Your task to perform on an android device: Go to Wikipedia Image 0: 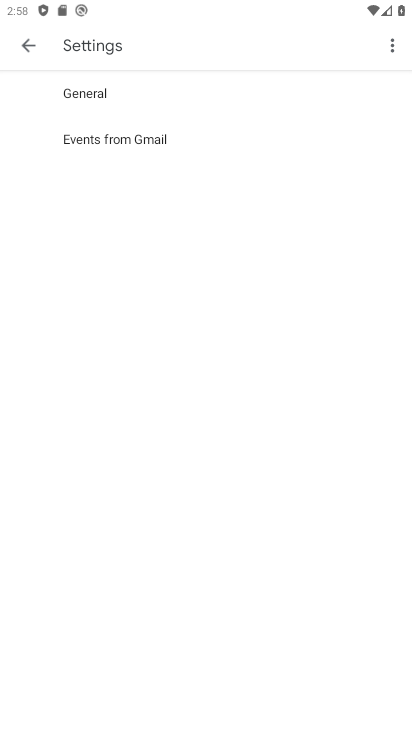
Step 0: press home button
Your task to perform on an android device: Go to Wikipedia Image 1: 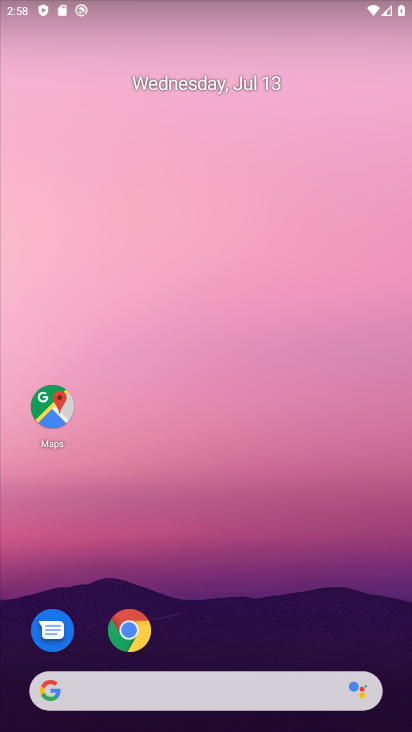
Step 1: click (124, 629)
Your task to perform on an android device: Go to Wikipedia Image 2: 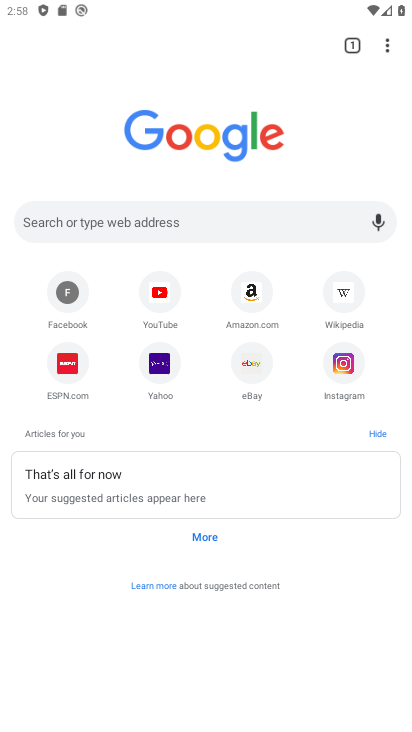
Step 2: click (345, 302)
Your task to perform on an android device: Go to Wikipedia Image 3: 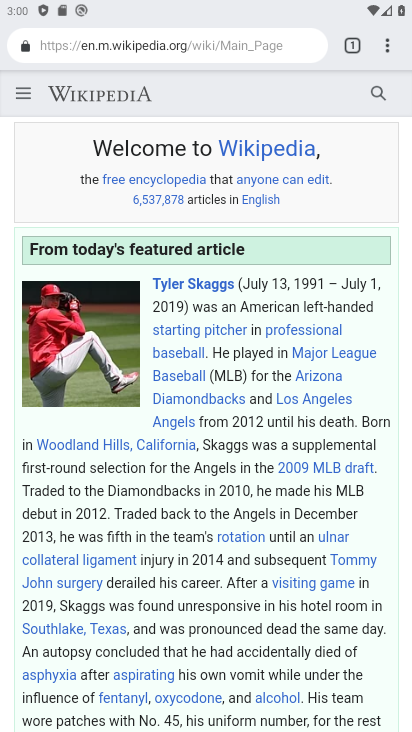
Step 3: task complete